Your task to perform on an android device: change timer sound Image 0: 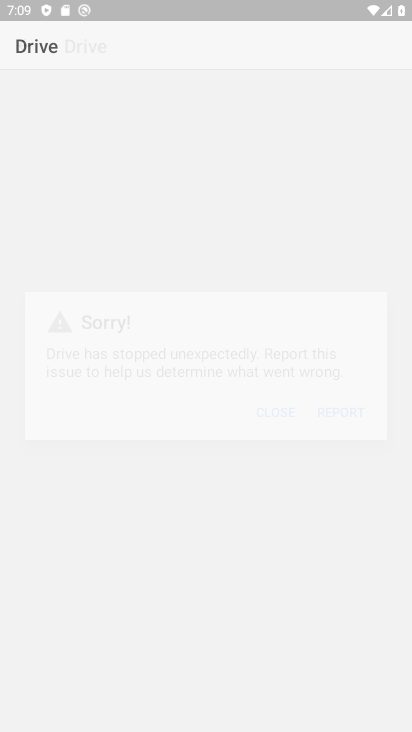
Step 0: press home button
Your task to perform on an android device: change timer sound Image 1: 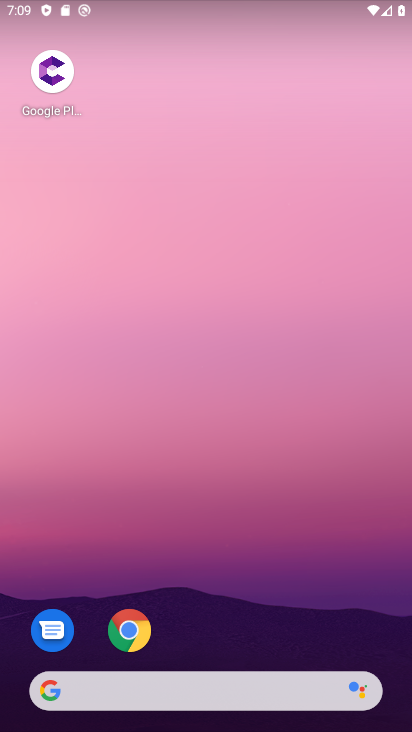
Step 1: drag from (265, 576) to (233, 159)
Your task to perform on an android device: change timer sound Image 2: 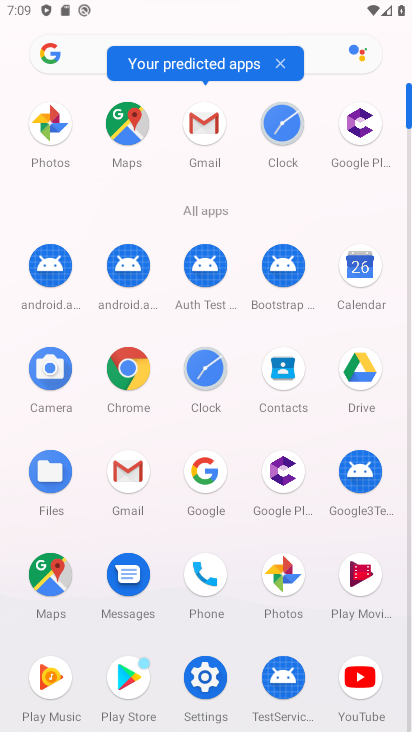
Step 2: click (283, 122)
Your task to perform on an android device: change timer sound Image 3: 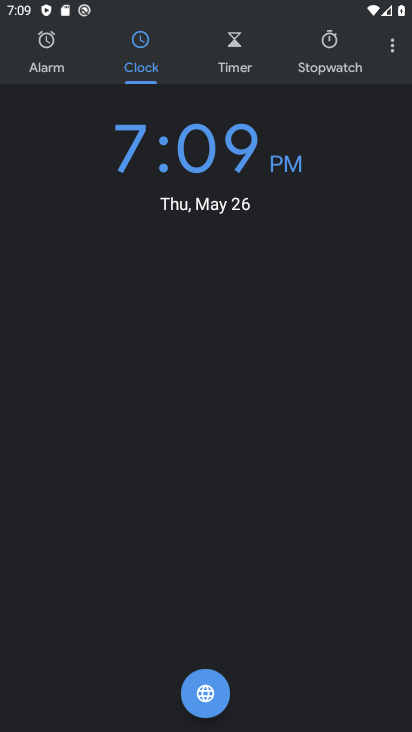
Step 3: click (394, 46)
Your task to perform on an android device: change timer sound Image 4: 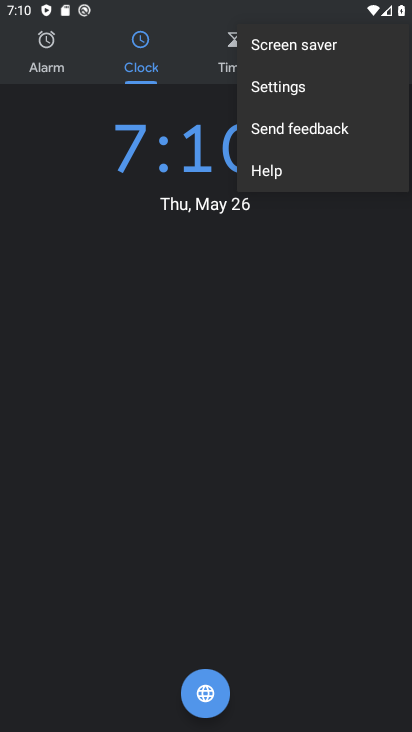
Step 4: click (271, 90)
Your task to perform on an android device: change timer sound Image 5: 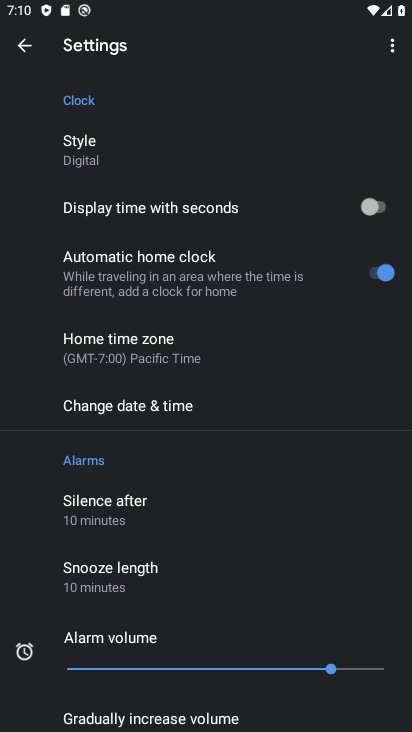
Step 5: drag from (186, 507) to (231, 417)
Your task to perform on an android device: change timer sound Image 6: 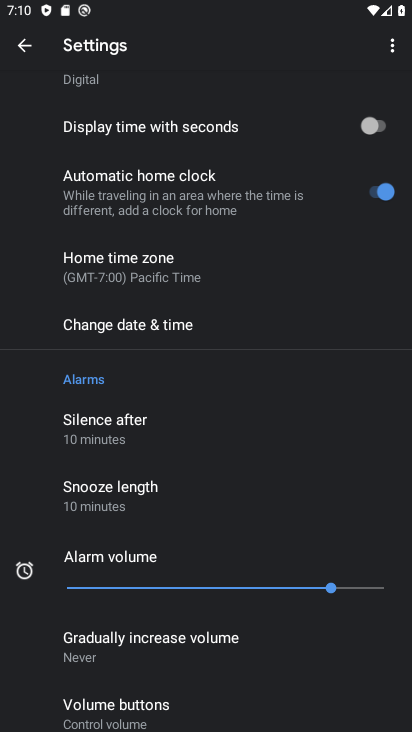
Step 6: drag from (187, 507) to (256, 414)
Your task to perform on an android device: change timer sound Image 7: 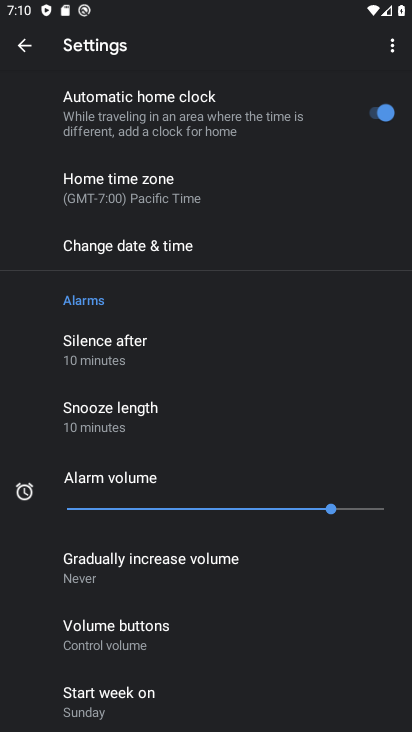
Step 7: drag from (180, 528) to (259, 422)
Your task to perform on an android device: change timer sound Image 8: 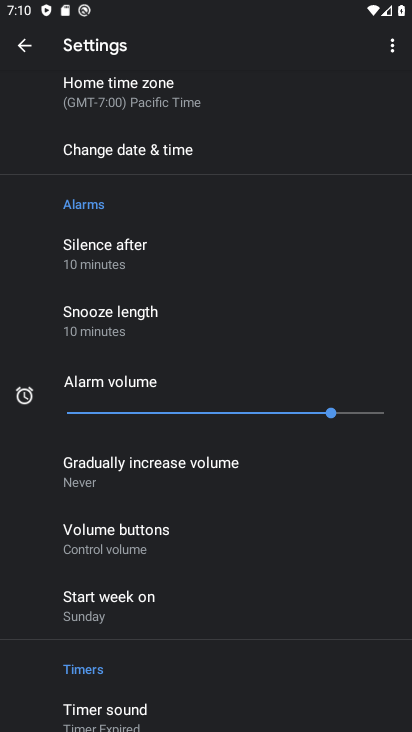
Step 8: drag from (207, 505) to (284, 412)
Your task to perform on an android device: change timer sound Image 9: 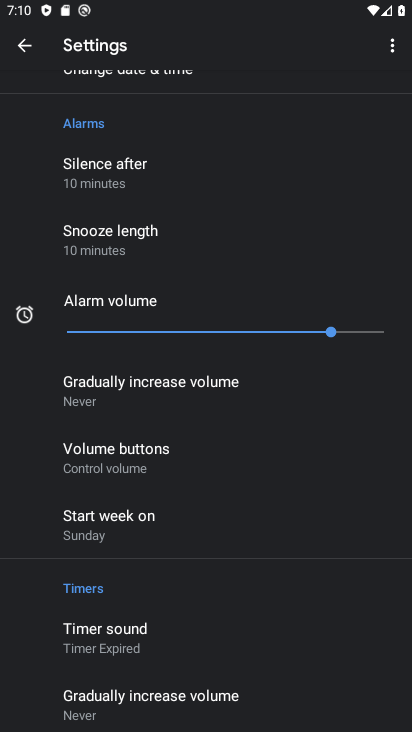
Step 9: drag from (182, 576) to (282, 463)
Your task to perform on an android device: change timer sound Image 10: 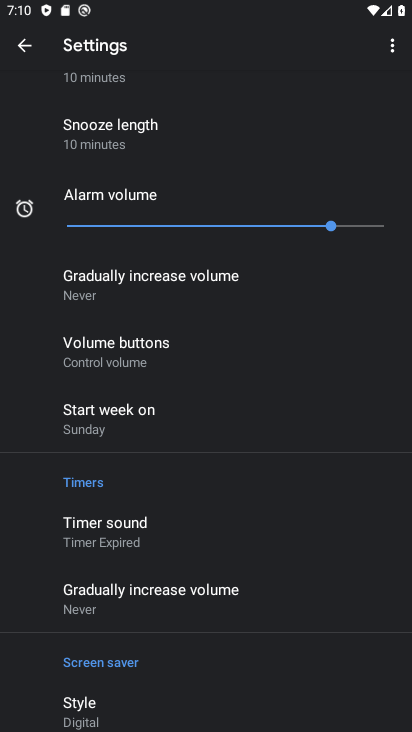
Step 10: click (132, 531)
Your task to perform on an android device: change timer sound Image 11: 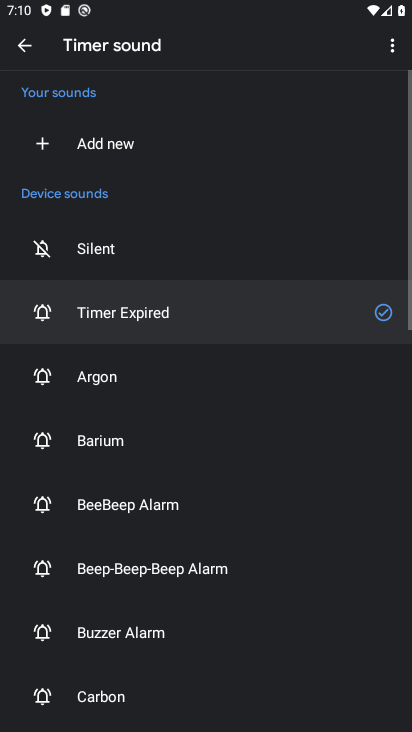
Step 11: drag from (188, 593) to (270, 444)
Your task to perform on an android device: change timer sound Image 12: 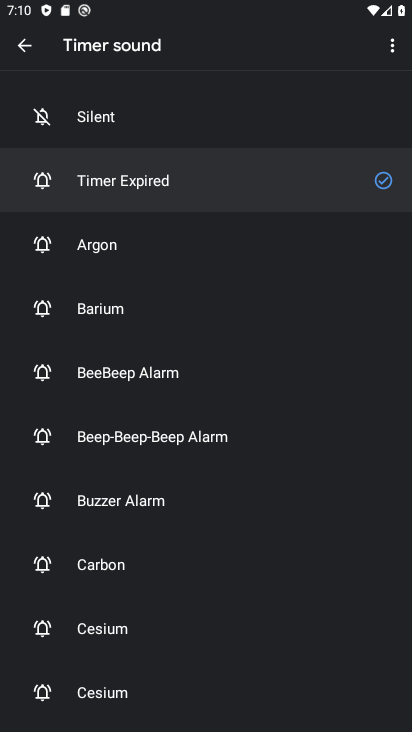
Step 12: drag from (202, 618) to (253, 355)
Your task to perform on an android device: change timer sound Image 13: 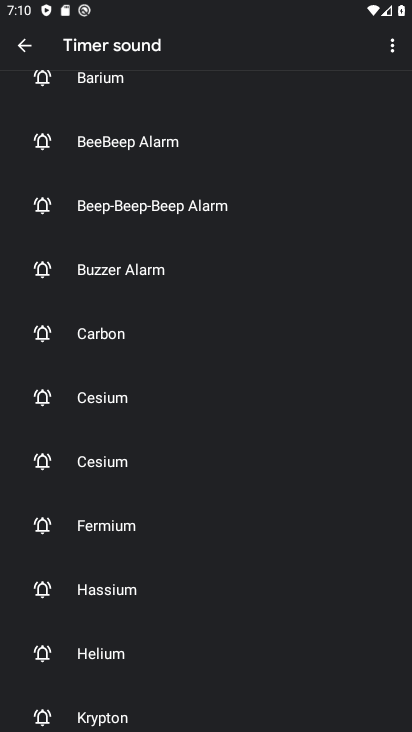
Step 13: drag from (181, 565) to (255, 360)
Your task to perform on an android device: change timer sound Image 14: 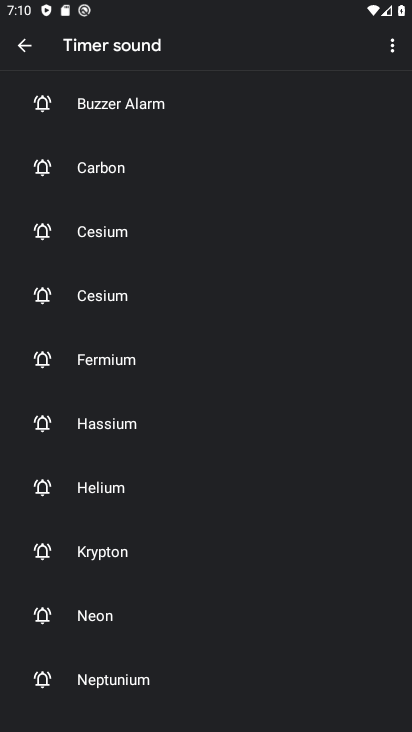
Step 14: click (136, 435)
Your task to perform on an android device: change timer sound Image 15: 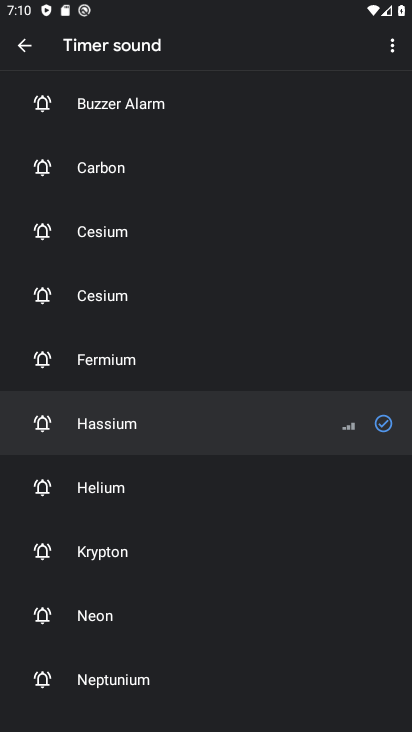
Step 15: task complete